Your task to perform on an android device: View the shopping cart on ebay.com. Search for "razer blackwidow" on ebay.com, select the first entry, and add it to the cart. Image 0: 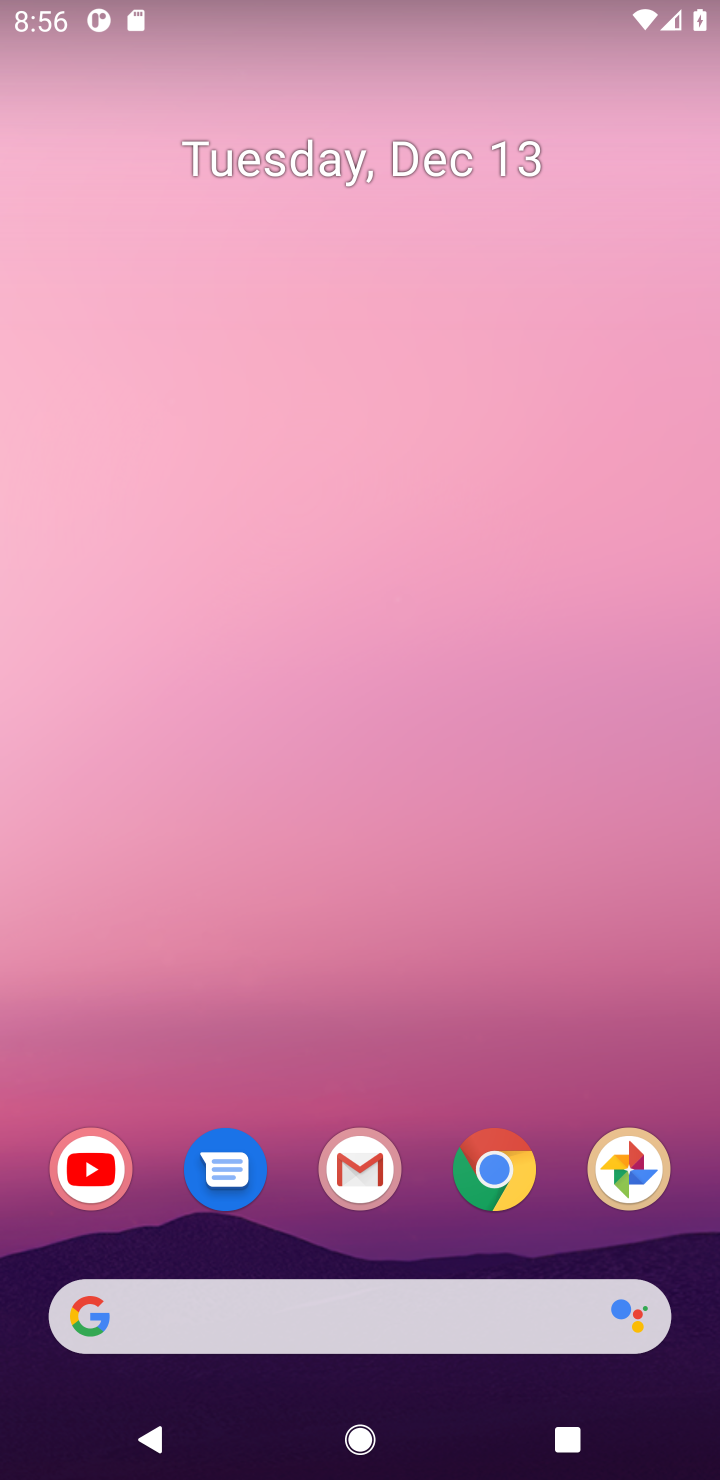
Step 0: click (534, 1193)
Your task to perform on an android device: View the shopping cart on ebay.com. Search for "razer blackwidow" on ebay.com, select the first entry, and add it to the cart. Image 1: 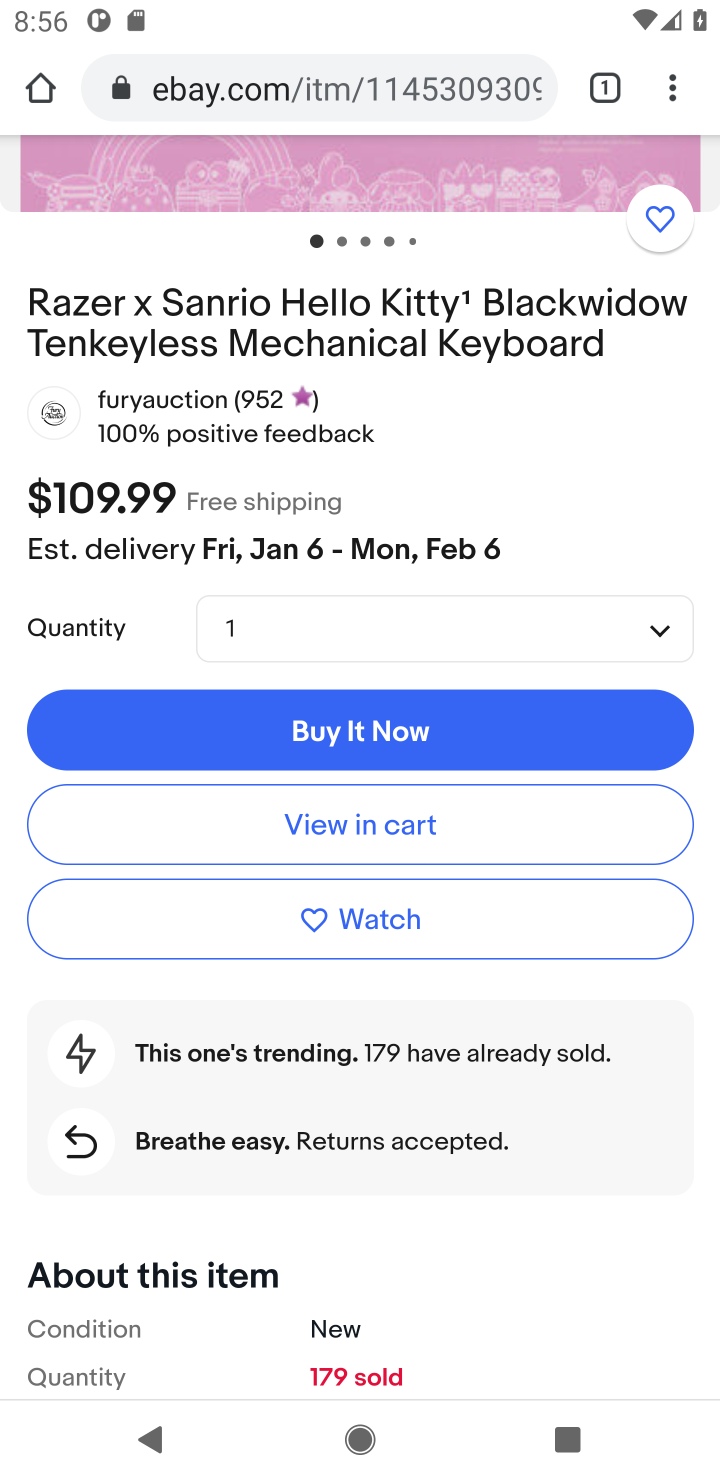
Step 1: press home button
Your task to perform on an android device: View the shopping cart on ebay.com. Search for "razer blackwidow" on ebay.com, select the first entry, and add it to the cart. Image 2: 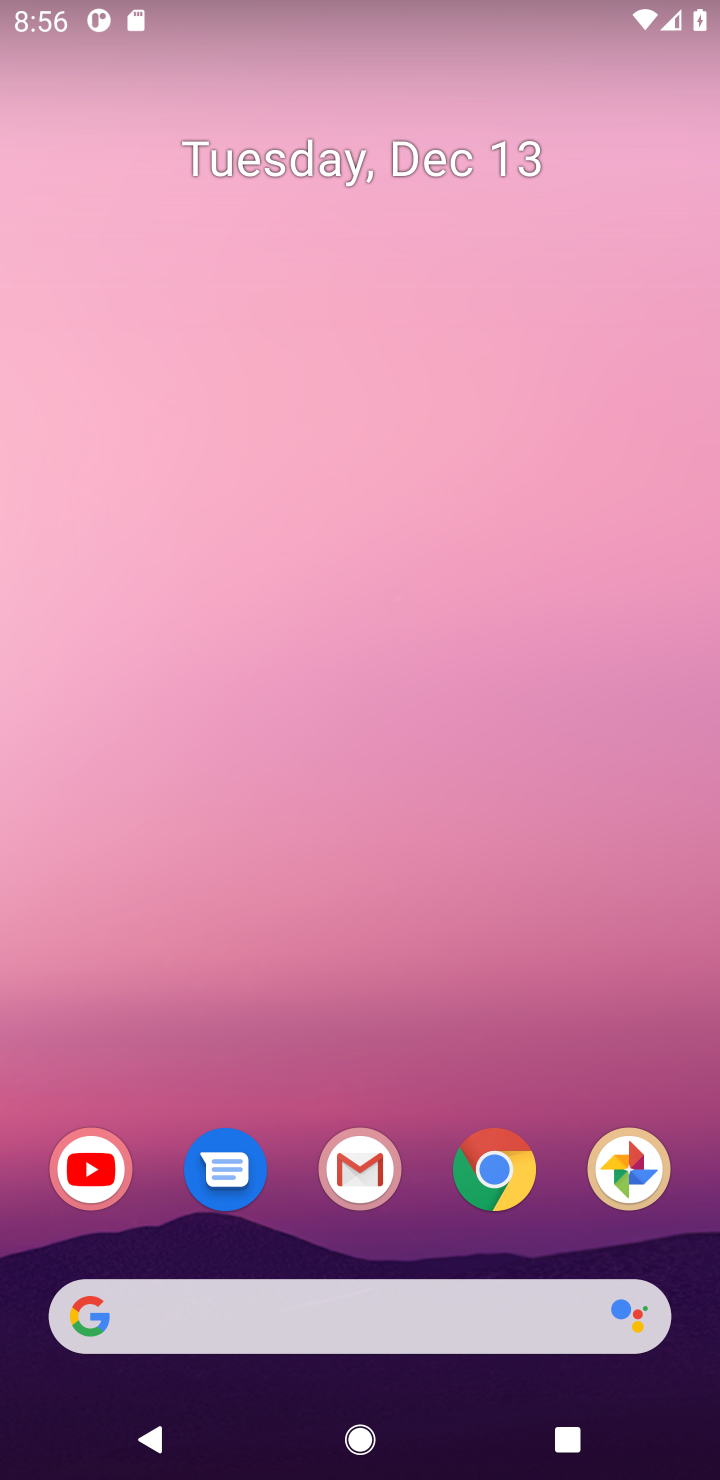
Step 2: click (499, 1160)
Your task to perform on an android device: View the shopping cart on ebay.com. Search for "razer blackwidow" on ebay.com, select the first entry, and add it to the cart. Image 3: 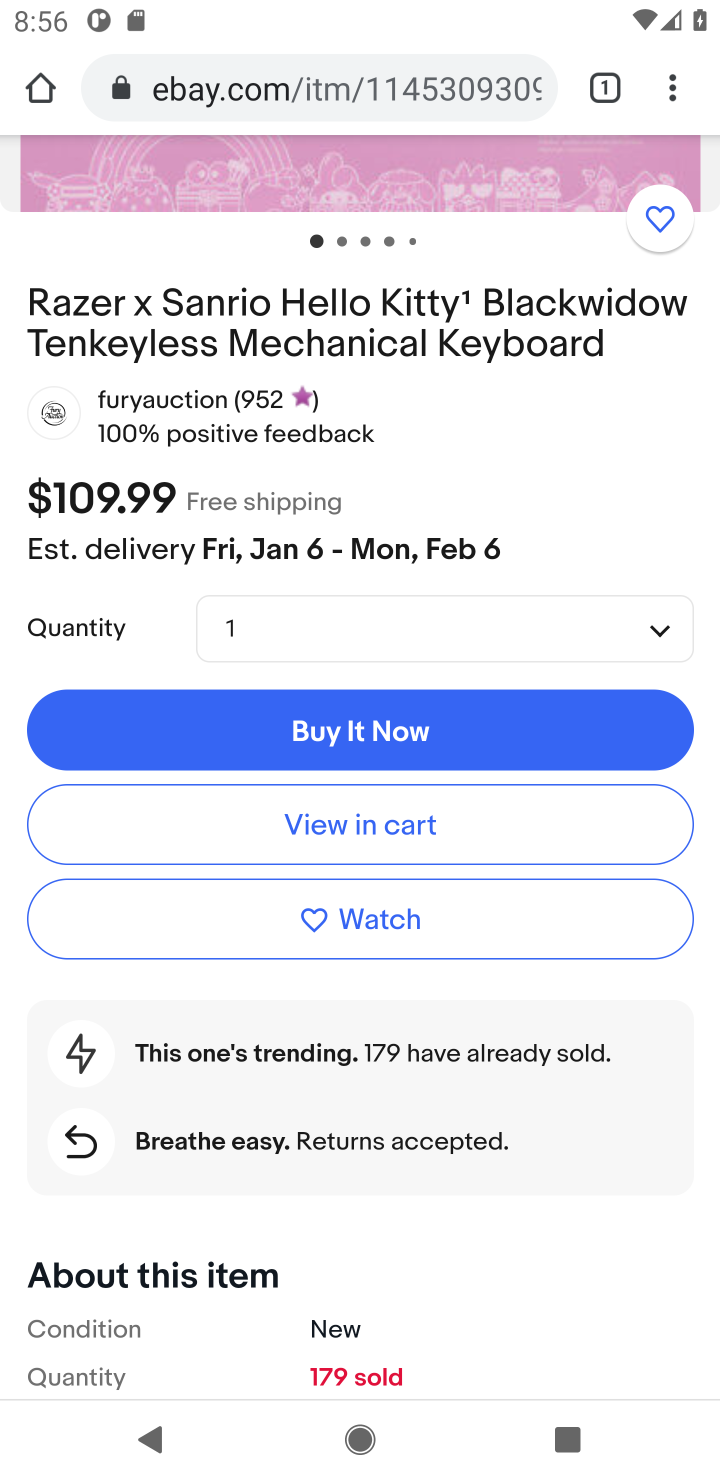
Step 3: click (416, 72)
Your task to perform on an android device: View the shopping cart on ebay.com. Search for "razer blackwidow" on ebay.com, select the first entry, and add it to the cart. Image 4: 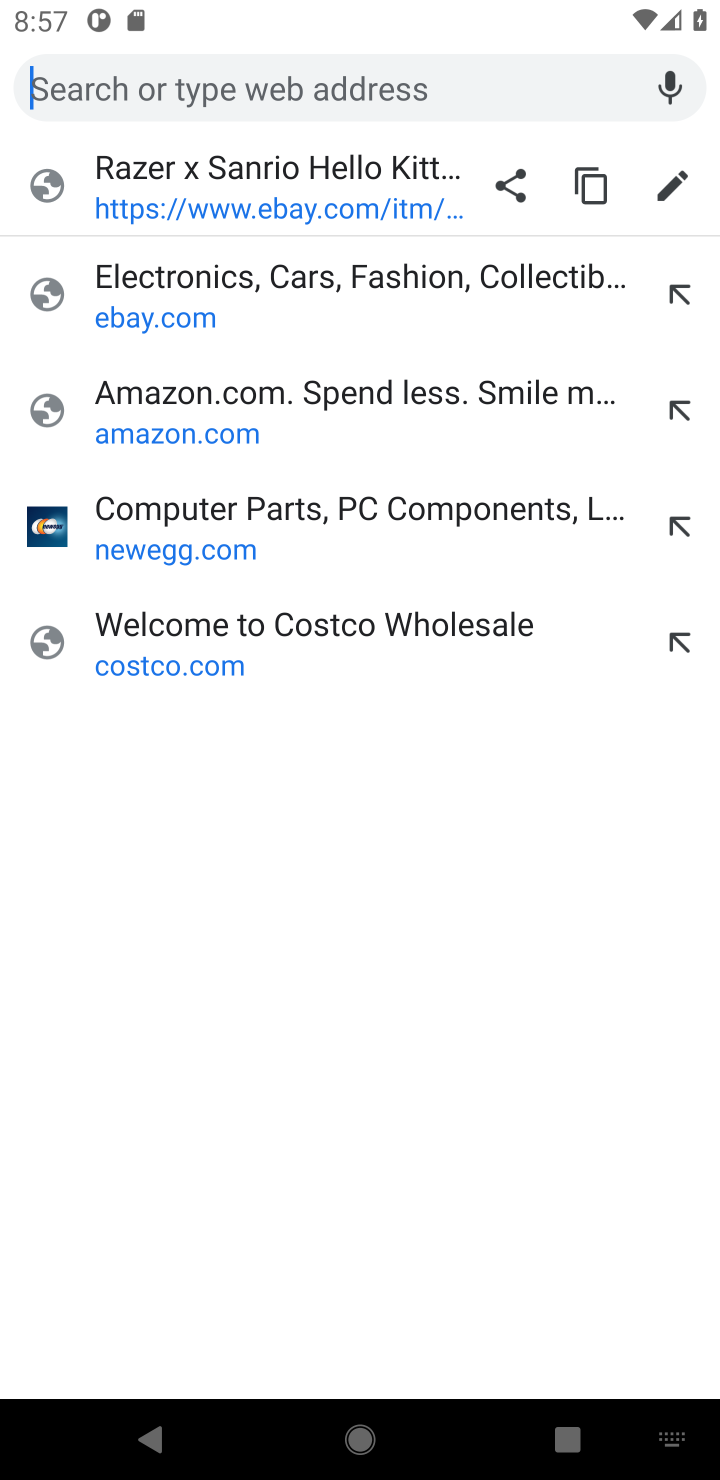
Step 4: type "ebay.com"
Your task to perform on an android device: View the shopping cart on ebay.com. Search for "razer blackwidow" on ebay.com, select the first entry, and add it to the cart. Image 5: 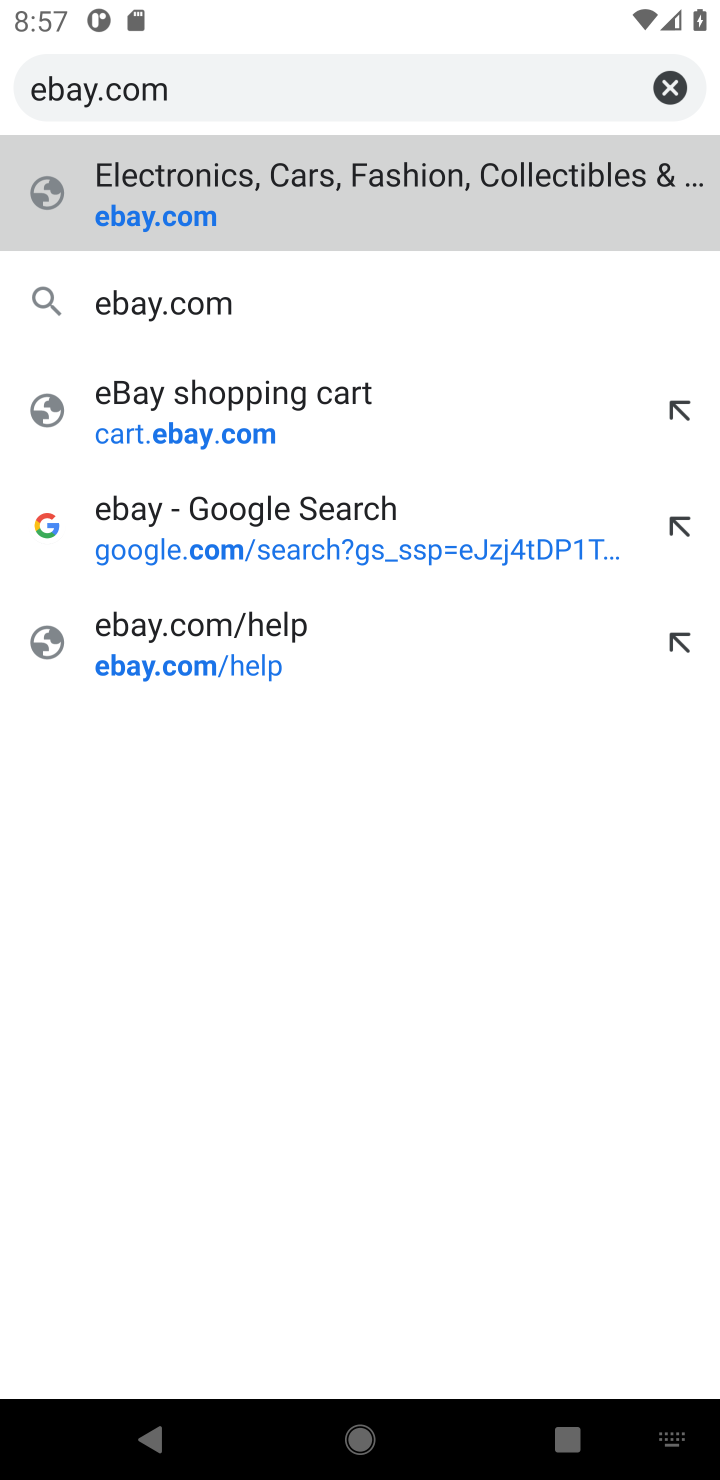
Step 5: click (282, 179)
Your task to perform on an android device: View the shopping cart on ebay.com. Search for "razer blackwidow" on ebay.com, select the first entry, and add it to the cart. Image 6: 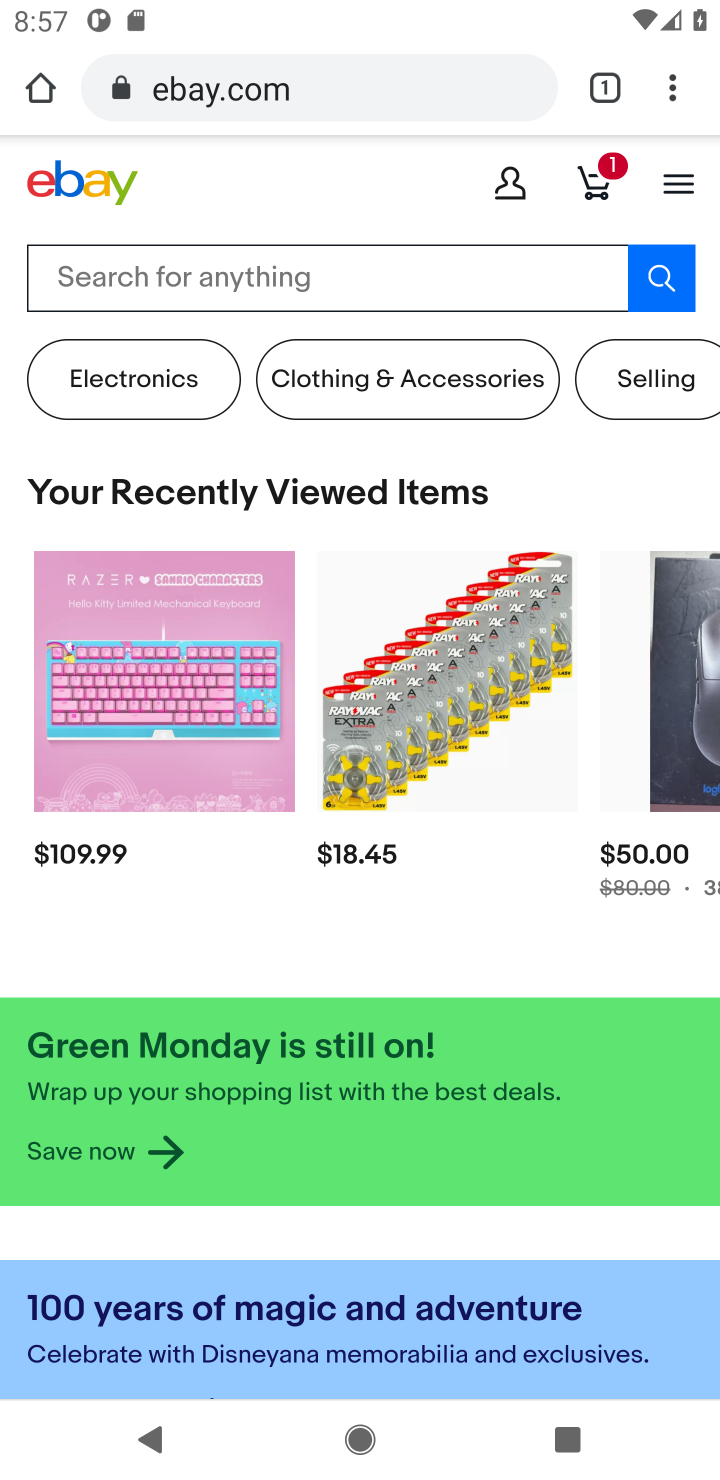
Step 6: click (222, 266)
Your task to perform on an android device: View the shopping cart on ebay.com. Search for "razer blackwidow" on ebay.com, select the first entry, and add it to the cart. Image 7: 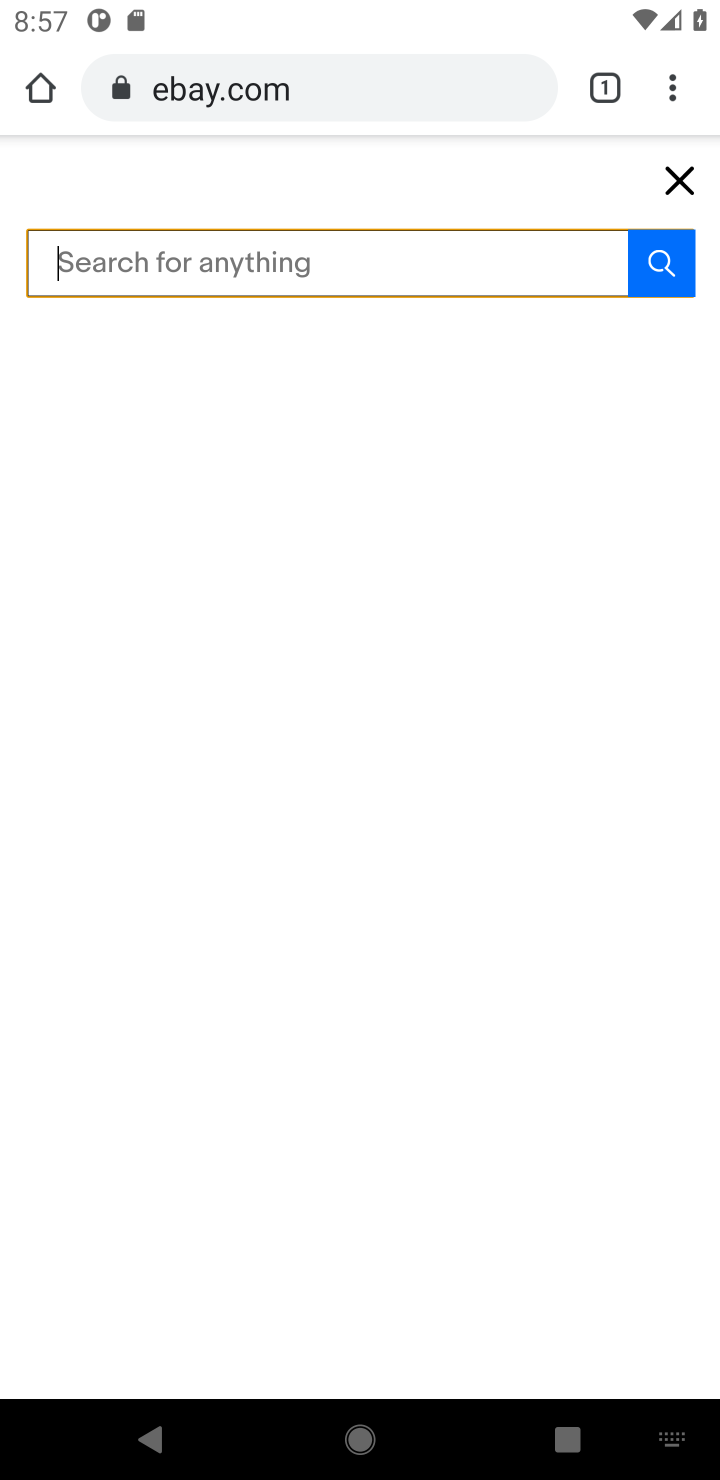
Step 7: type "razer blackwindow"
Your task to perform on an android device: View the shopping cart on ebay.com. Search for "razer blackwidow" on ebay.com, select the first entry, and add it to the cart. Image 8: 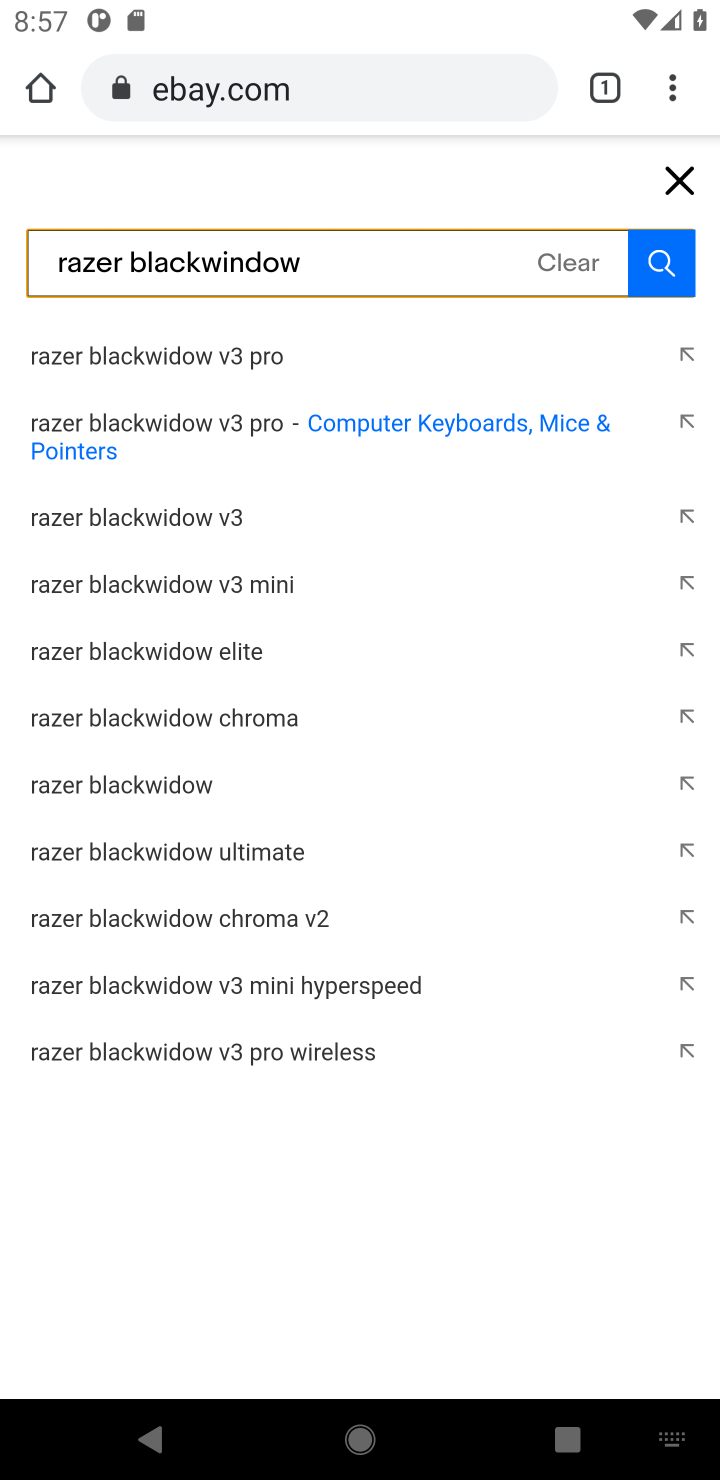
Step 8: click (645, 284)
Your task to perform on an android device: View the shopping cart on ebay.com. Search for "razer blackwidow" on ebay.com, select the first entry, and add it to the cart. Image 9: 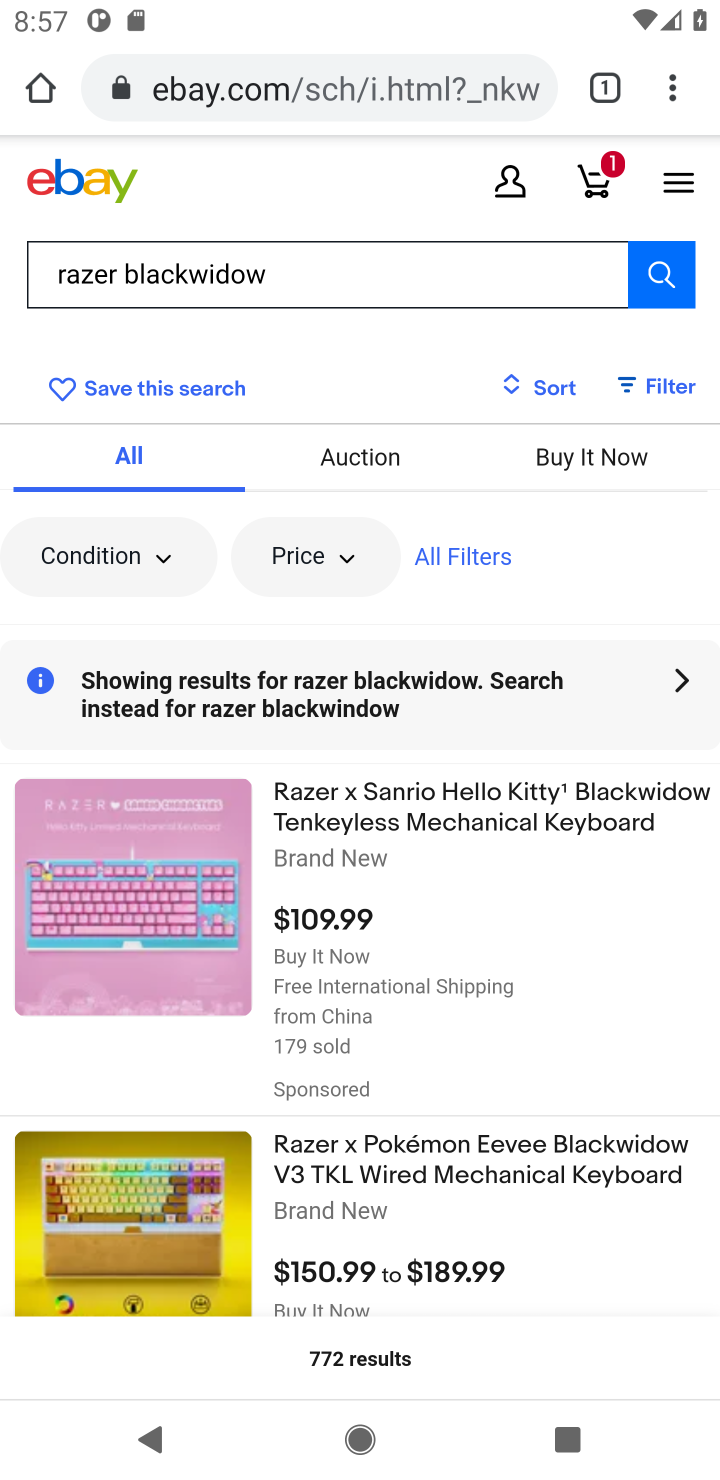
Step 9: click (386, 763)
Your task to perform on an android device: View the shopping cart on ebay.com. Search for "razer blackwidow" on ebay.com, select the first entry, and add it to the cart. Image 10: 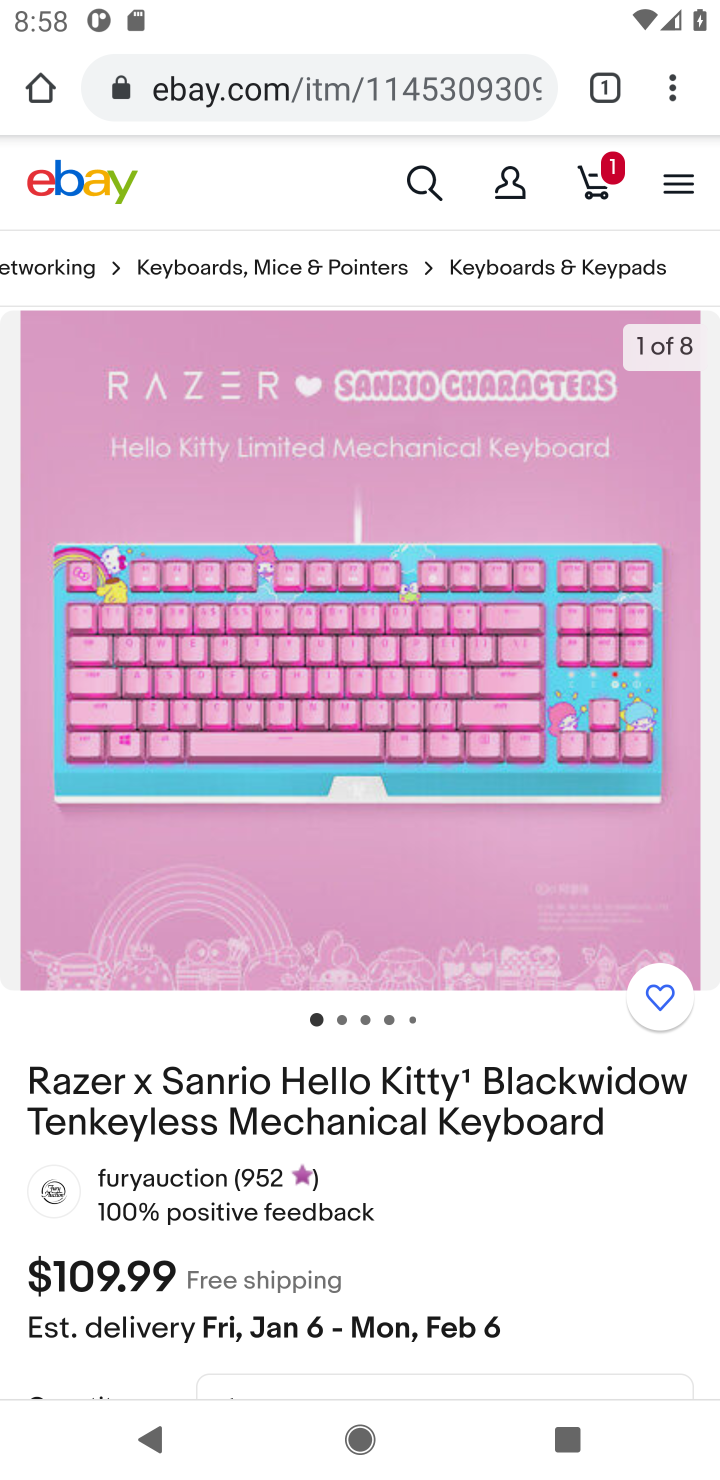
Step 10: drag from (510, 1266) to (288, 301)
Your task to perform on an android device: View the shopping cart on ebay.com. Search for "razer blackwidow" on ebay.com, select the first entry, and add it to the cart. Image 11: 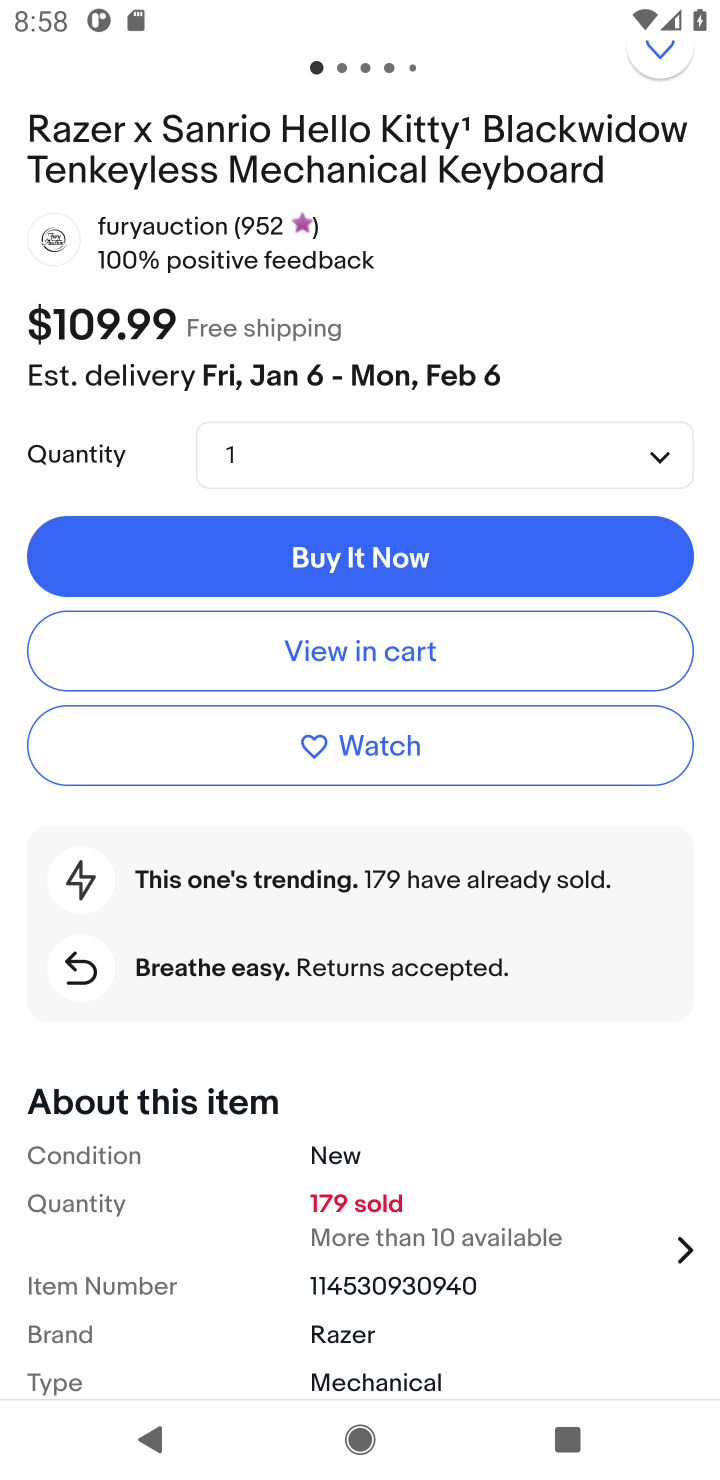
Step 11: click (456, 671)
Your task to perform on an android device: View the shopping cart on ebay.com. Search for "razer blackwidow" on ebay.com, select the first entry, and add it to the cart. Image 12: 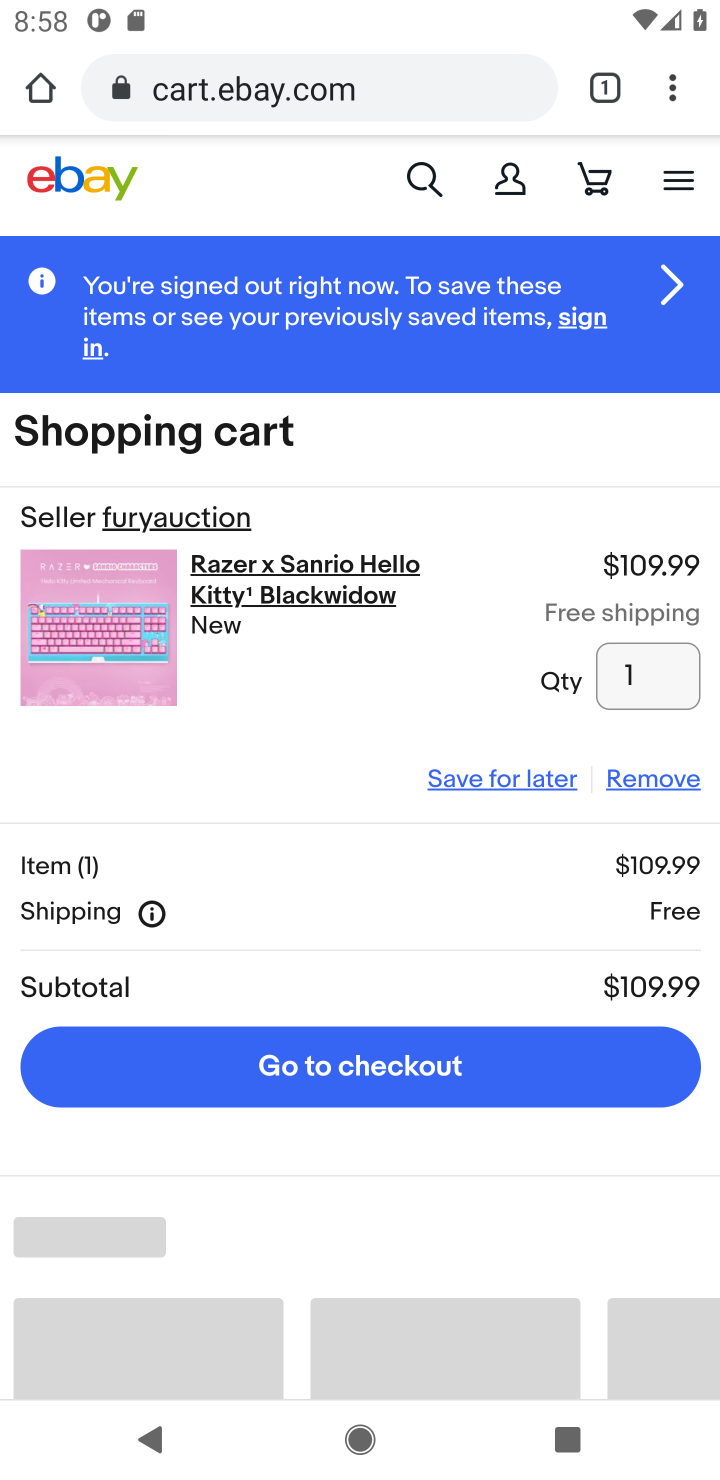
Step 12: task complete